Your task to perform on an android device: Search for "lg ultragear" on target.com, select the first entry, and add it to the cart. Image 0: 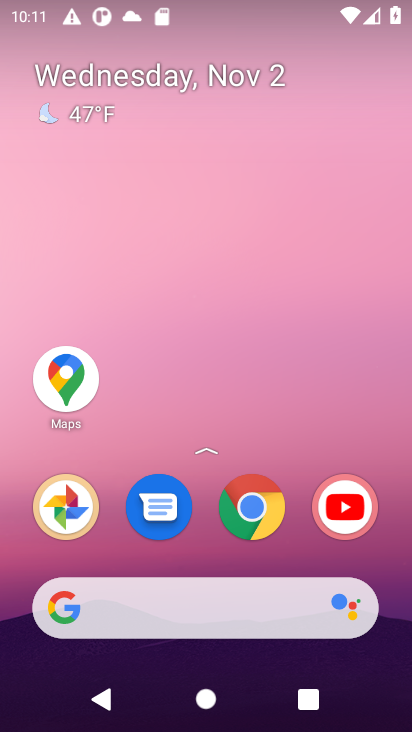
Step 0: click (238, 619)
Your task to perform on an android device: Search for "lg ultragear" on target.com, select the first entry, and add it to the cart. Image 1: 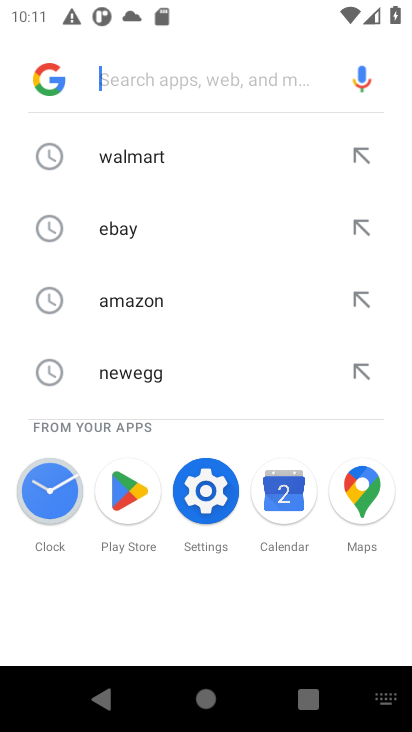
Step 1: type "target"
Your task to perform on an android device: Search for "lg ultragear" on target.com, select the first entry, and add it to the cart. Image 2: 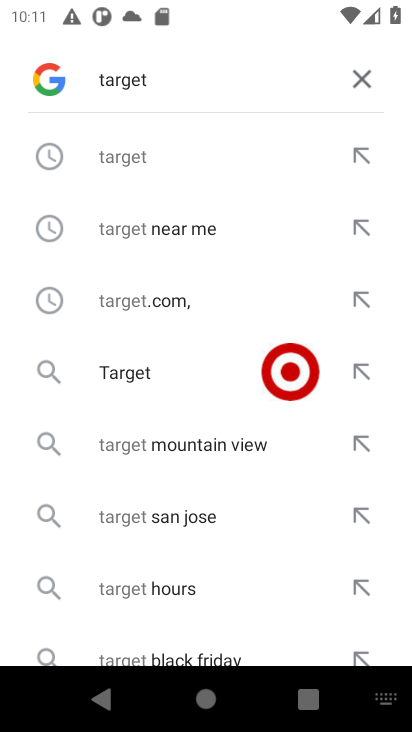
Step 2: click (216, 171)
Your task to perform on an android device: Search for "lg ultragear" on target.com, select the first entry, and add it to the cart. Image 3: 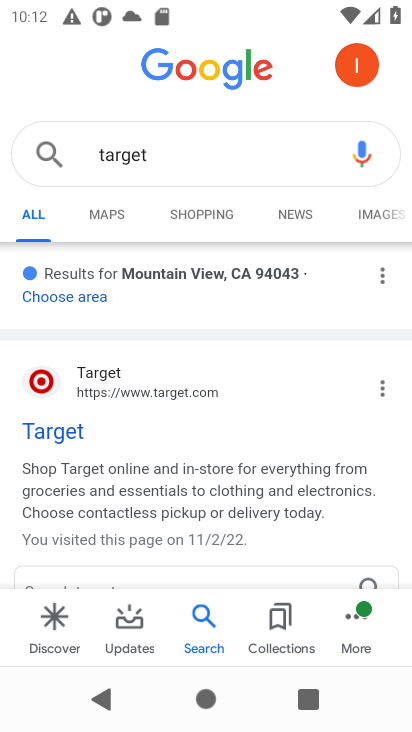
Step 3: click (136, 376)
Your task to perform on an android device: Search for "lg ultragear" on target.com, select the first entry, and add it to the cart. Image 4: 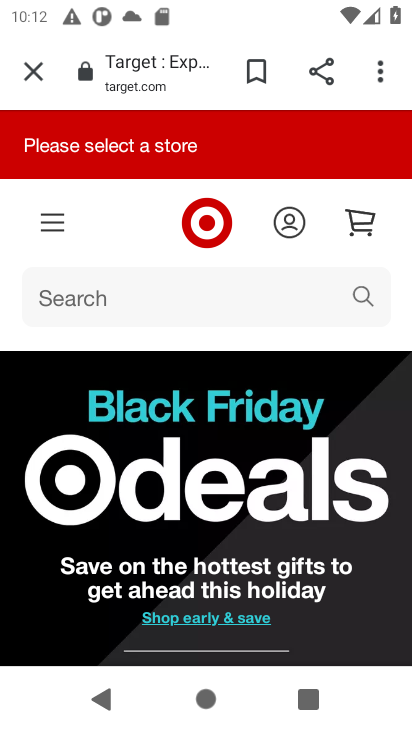
Step 4: click (242, 307)
Your task to perform on an android device: Search for "lg ultragear" on target.com, select the first entry, and add it to the cart. Image 5: 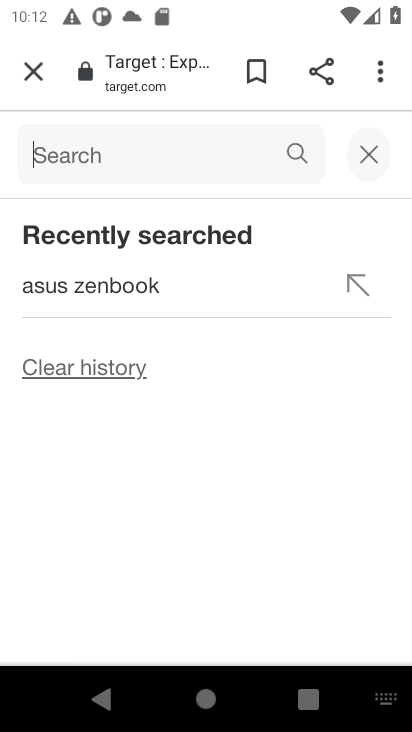
Step 5: type "lg ultragear"
Your task to perform on an android device: Search for "lg ultragear" on target.com, select the first entry, and add it to the cart. Image 6: 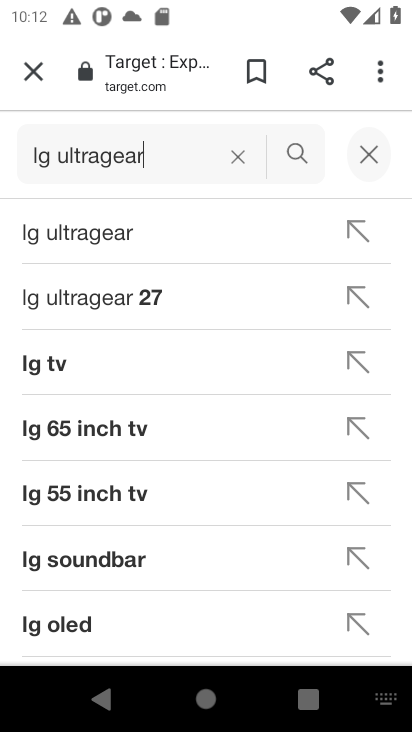
Step 6: click (190, 233)
Your task to perform on an android device: Search for "lg ultragear" on target.com, select the first entry, and add it to the cart. Image 7: 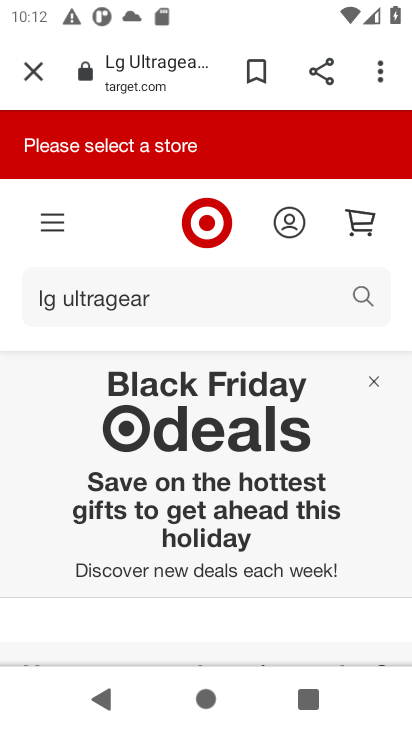
Step 7: drag from (168, 541) to (162, 264)
Your task to perform on an android device: Search for "lg ultragear" on target.com, select the first entry, and add it to the cart. Image 8: 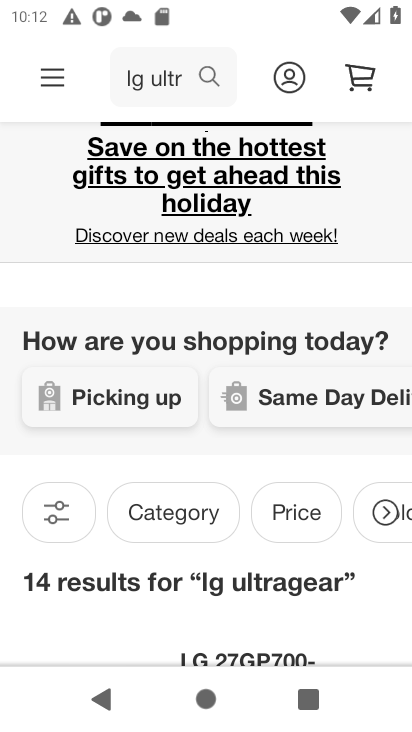
Step 8: drag from (232, 592) to (173, 141)
Your task to perform on an android device: Search for "lg ultragear" on target.com, select the first entry, and add it to the cart. Image 9: 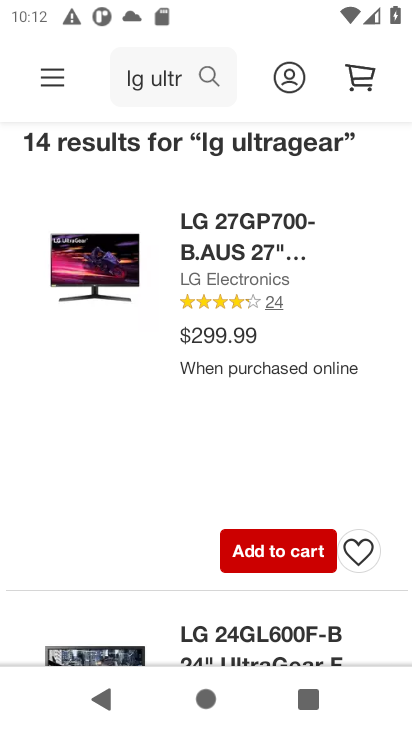
Step 9: click (251, 560)
Your task to perform on an android device: Search for "lg ultragear" on target.com, select the first entry, and add it to the cart. Image 10: 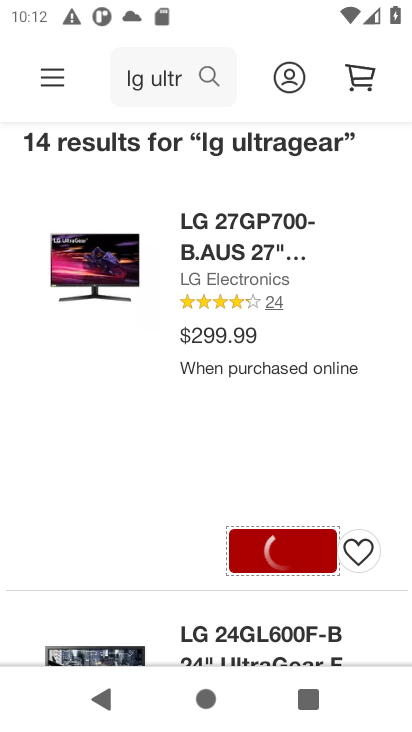
Step 10: task complete